Your task to perform on an android device: change the upload size in google photos Image 0: 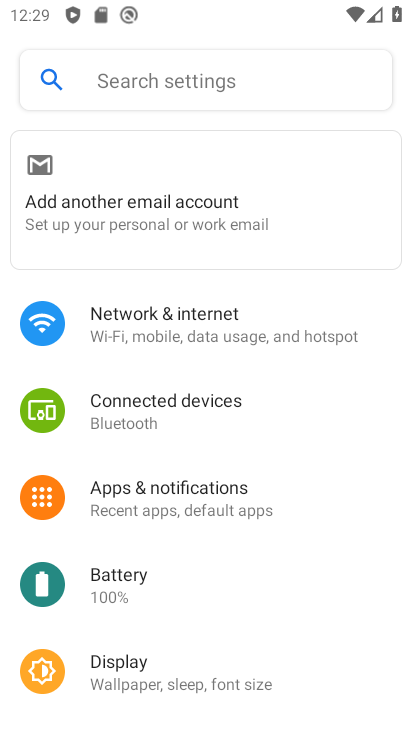
Step 0: press home button
Your task to perform on an android device: change the upload size in google photos Image 1: 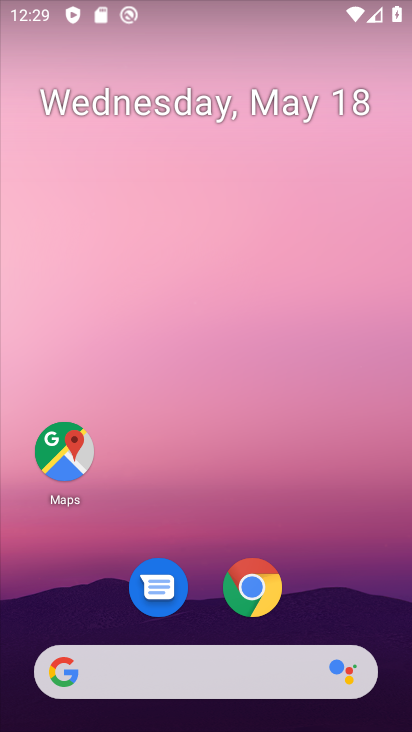
Step 1: drag from (339, 586) to (342, 106)
Your task to perform on an android device: change the upload size in google photos Image 2: 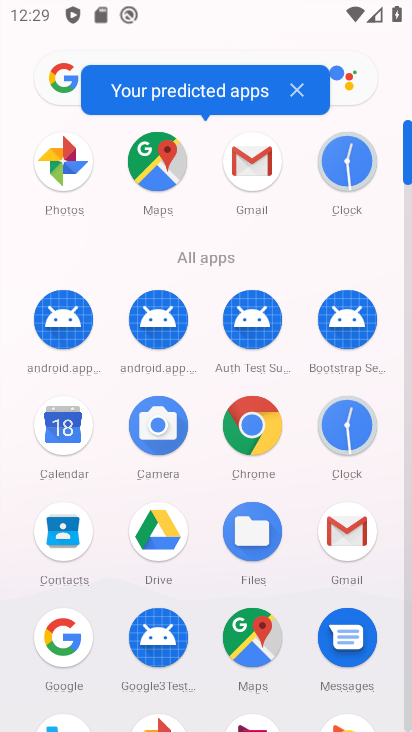
Step 2: drag from (290, 592) to (294, 272)
Your task to perform on an android device: change the upload size in google photos Image 3: 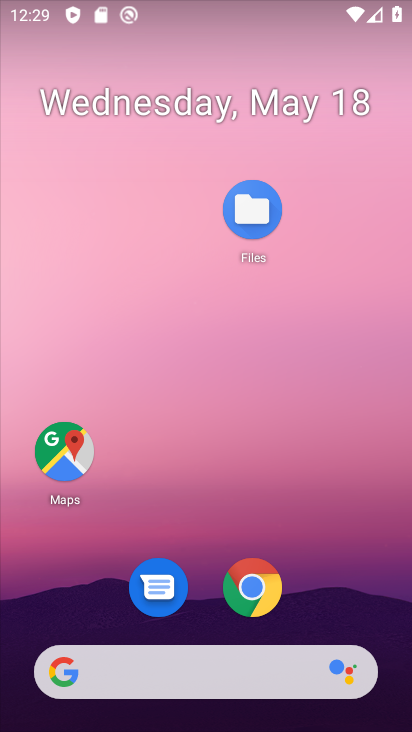
Step 3: drag from (358, 555) to (349, 159)
Your task to perform on an android device: change the upload size in google photos Image 4: 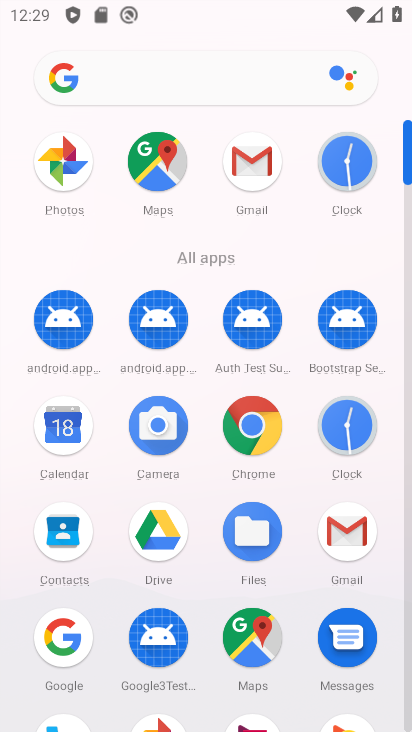
Step 4: drag from (293, 573) to (309, 245)
Your task to perform on an android device: change the upload size in google photos Image 5: 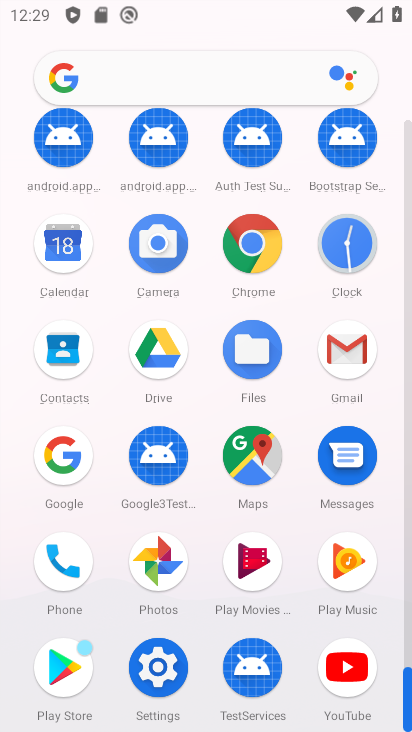
Step 5: click (174, 566)
Your task to perform on an android device: change the upload size in google photos Image 6: 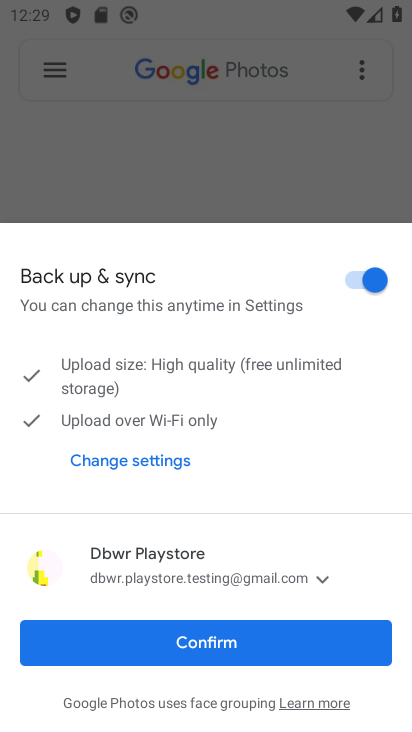
Step 6: click (303, 657)
Your task to perform on an android device: change the upload size in google photos Image 7: 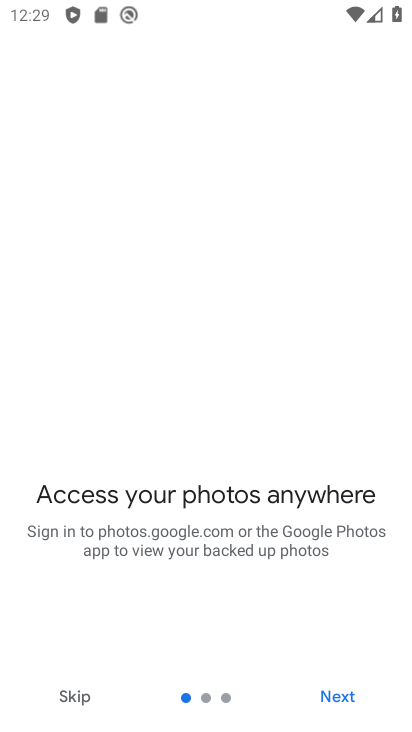
Step 7: click (323, 687)
Your task to perform on an android device: change the upload size in google photos Image 8: 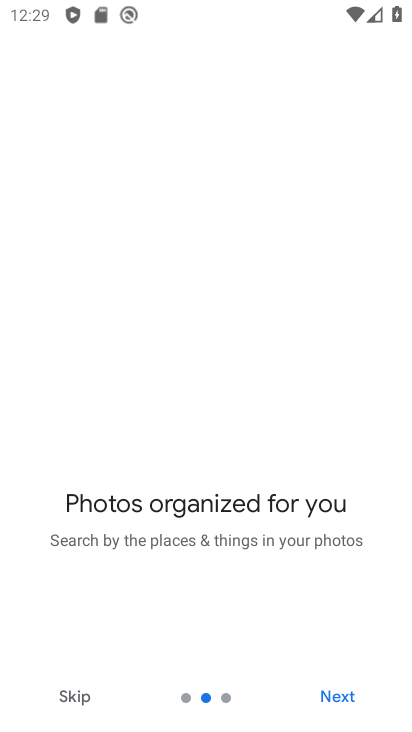
Step 8: click (323, 687)
Your task to perform on an android device: change the upload size in google photos Image 9: 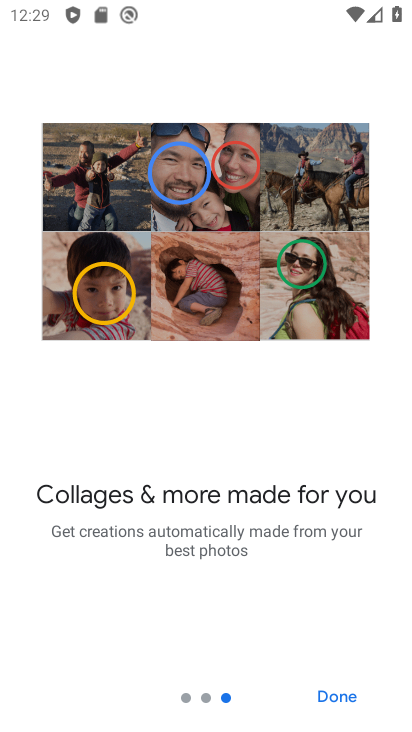
Step 9: click (337, 692)
Your task to perform on an android device: change the upload size in google photos Image 10: 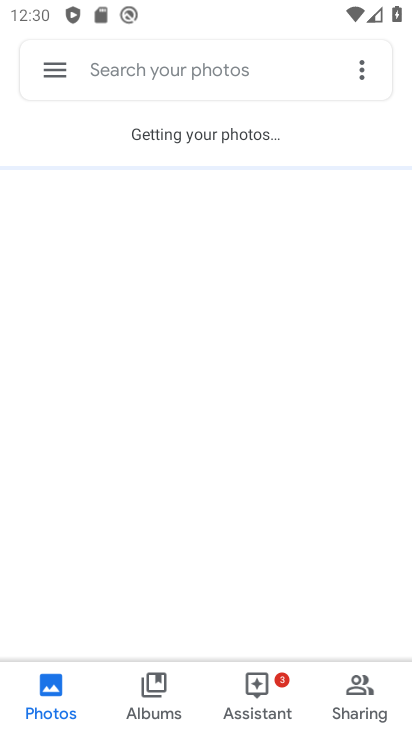
Step 10: click (53, 69)
Your task to perform on an android device: change the upload size in google photos Image 11: 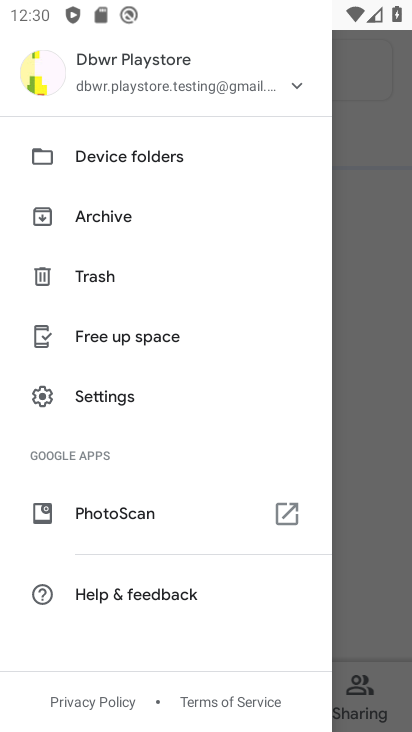
Step 11: drag from (225, 530) to (238, 317)
Your task to perform on an android device: change the upload size in google photos Image 12: 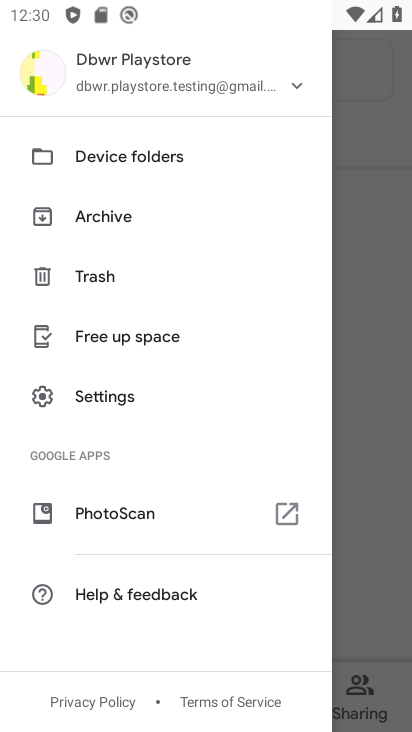
Step 12: click (134, 399)
Your task to perform on an android device: change the upload size in google photos Image 13: 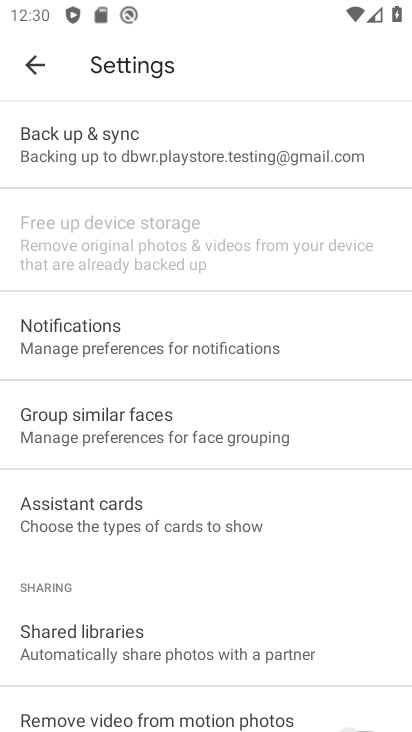
Step 13: drag from (298, 571) to (309, 342)
Your task to perform on an android device: change the upload size in google photos Image 14: 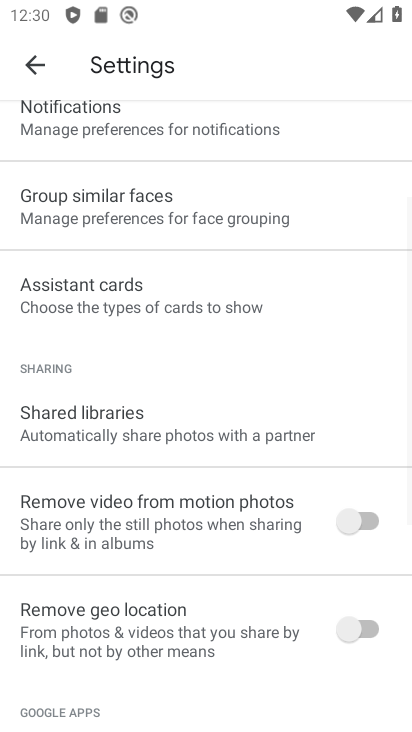
Step 14: drag from (293, 605) to (310, 368)
Your task to perform on an android device: change the upload size in google photos Image 15: 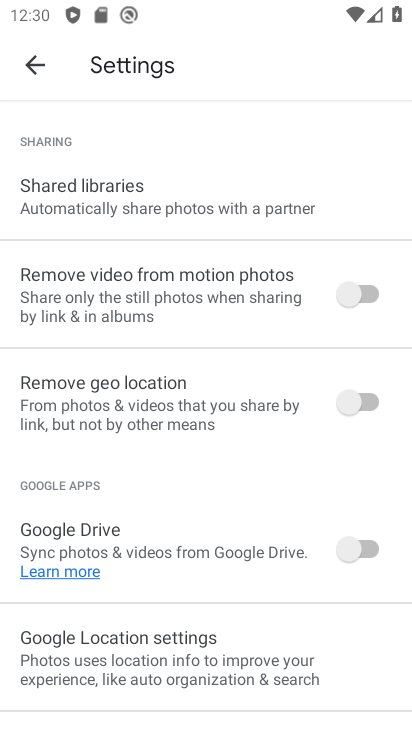
Step 15: drag from (318, 612) to (307, 415)
Your task to perform on an android device: change the upload size in google photos Image 16: 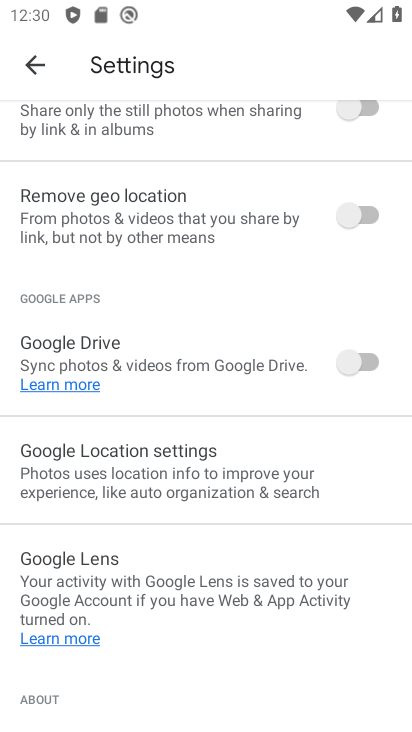
Step 16: drag from (314, 665) to (310, 423)
Your task to perform on an android device: change the upload size in google photos Image 17: 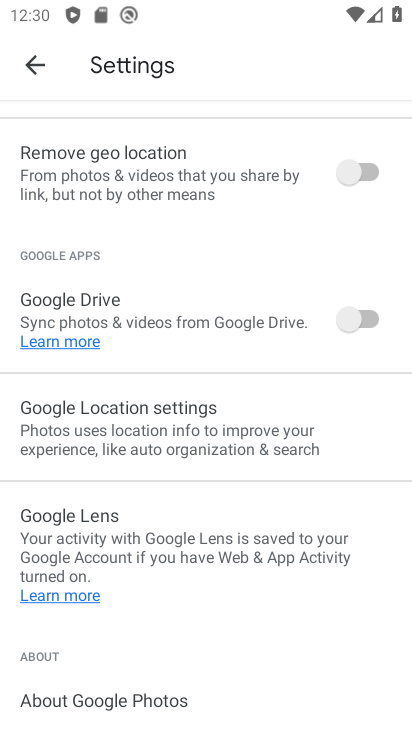
Step 17: drag from (287, 672) to (290, 480)
Your task to perform on an android device: change the upload size in google photos Image 18: 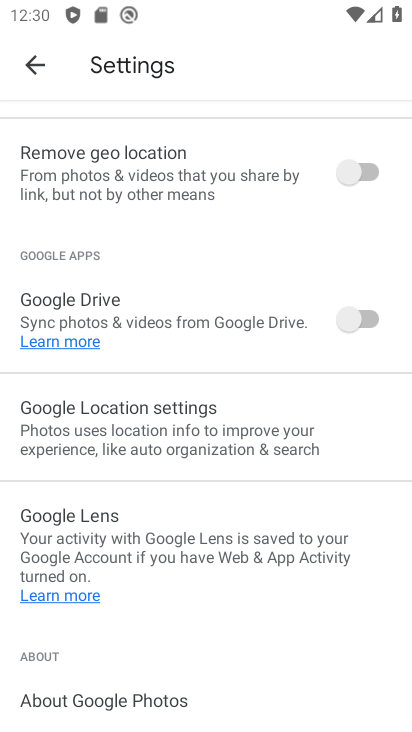
Step 18: drag from (287, 241) to (287, 393)
Your task to perform on an android device: change the upload size in google photos Image 19: 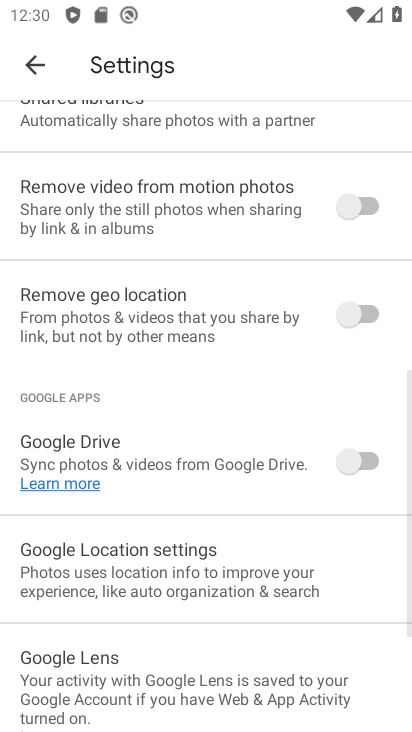
Step 19: drag from (306, 215) to (307, 371)
Your task to perform on an android device: change the upload size in google photos Image 20: 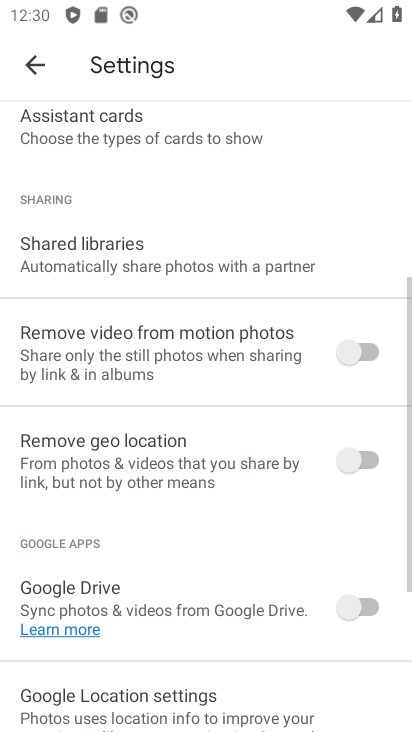
Step 20: drag from (303, 194) to (300, 386)
Your task to perform on an android device: change the upload size in google photos Image 21: 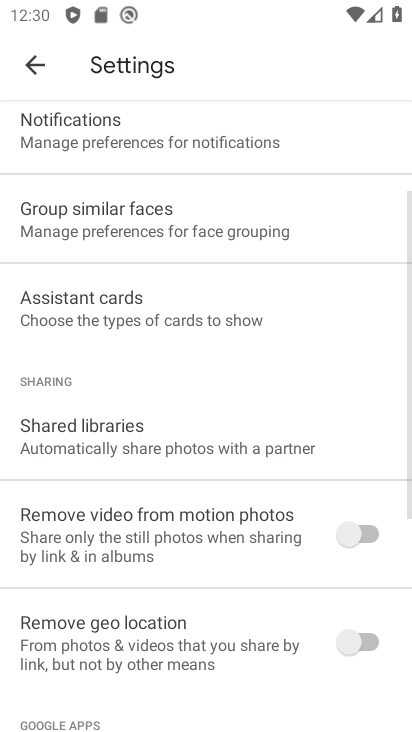
Step 21: drag from (300, 213) to (288, 409)
Your task to perform on an android device: change the upload size in google photos Image 22: 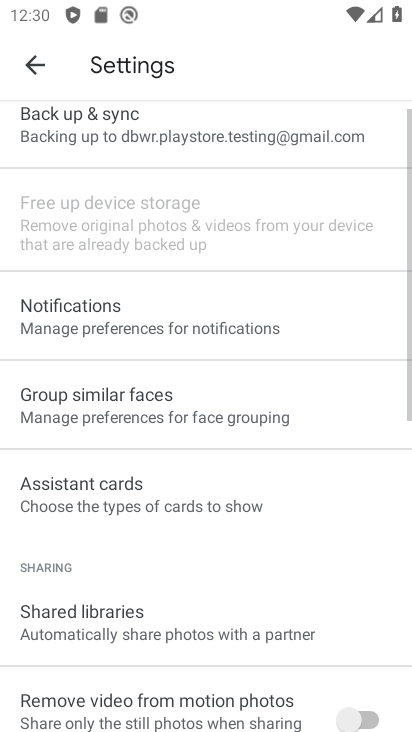
Step 22: drag from (280, 178) to (263, 369)
Your task to perform on an android device: change the upload size in google photos Image 23: 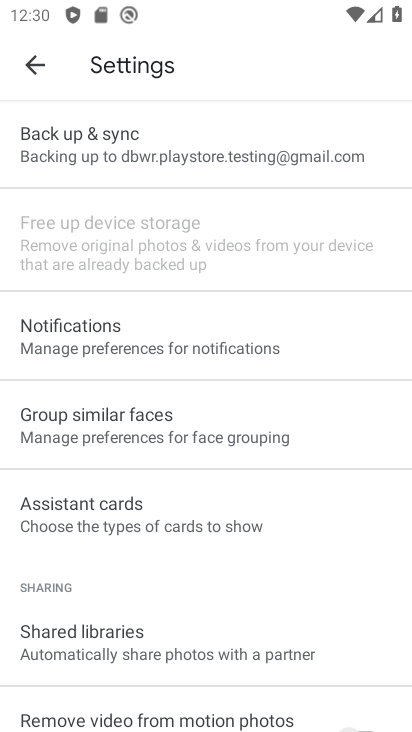
Step 23: click (220, 152)
Your task to perform on an android device: change the upload size in google photos Image 24: 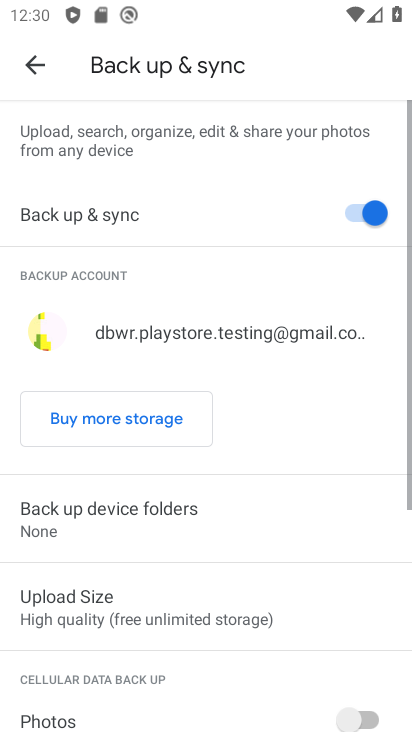
Step 24: drag from (267, 529) to (273, 324)
Your task to perform on an android device: change the upload size in google photos Image 25: 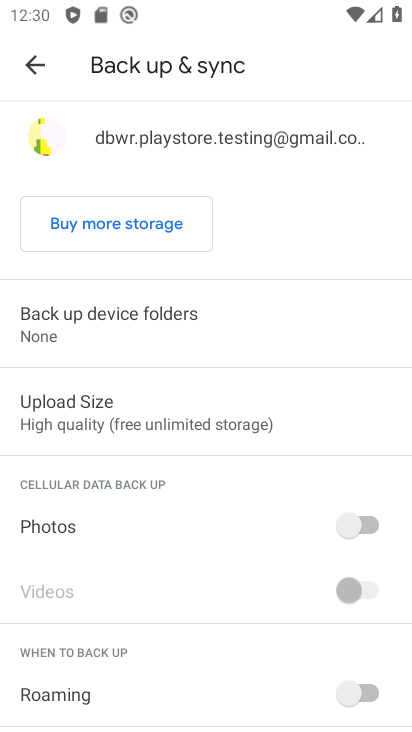
Step 25: drag from (250, 559) to (265, 368)
Your task to perform on an android device: change the upload size in google photos Image 26: 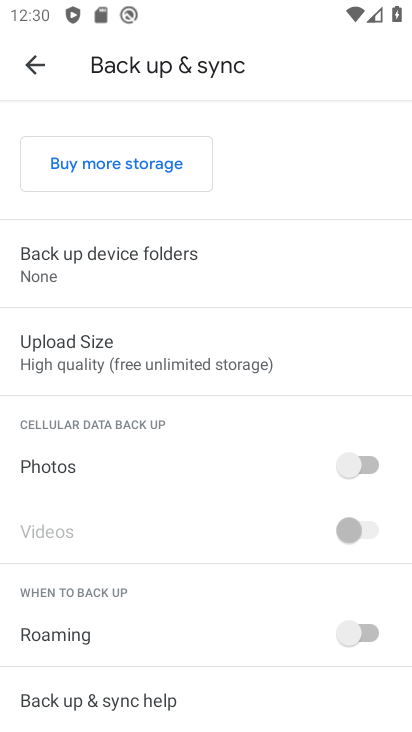
Step 26: click (167, 372)
Your task to perform on an android device: change the upload size in google photos Image 27: 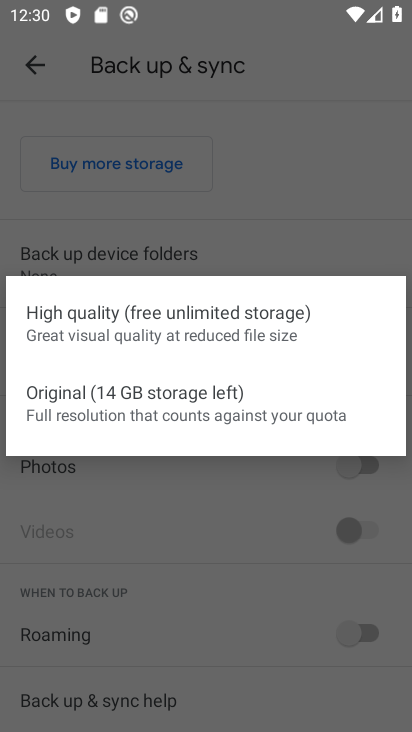
Step 27: click (164, 409)
Your task to perform on an android device: change the upload size in google photos Image 28: 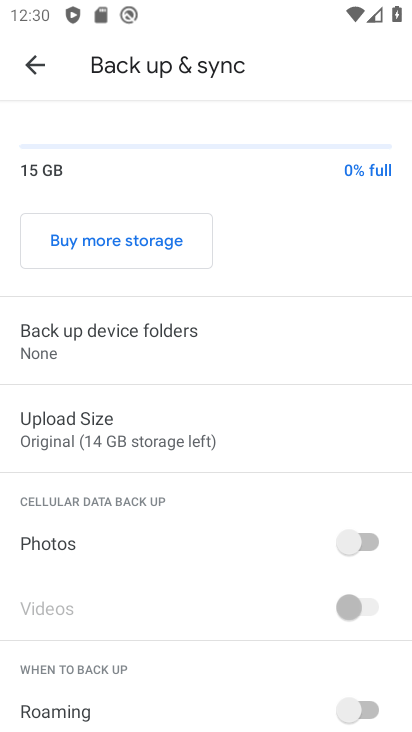
Step 28: task complete